Your task to perform on an android device: Search for the best gaming mouse on Best Buy. Image 0: 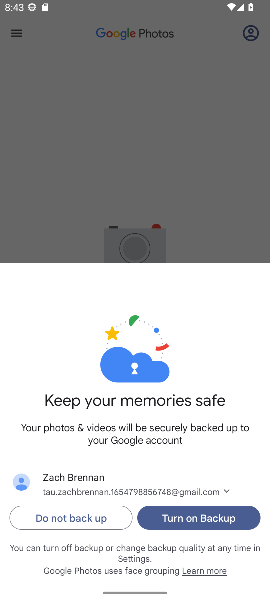
Step 0: press home button
Your task to perform on an android device: Search for the best gaming mouse on Best Buy. Image 1: 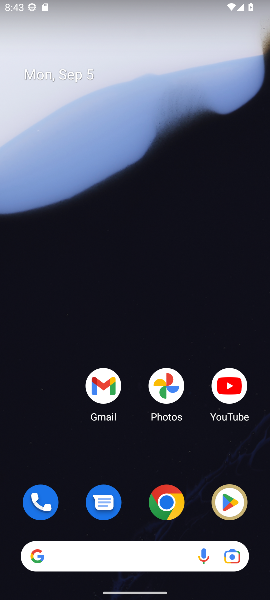
Step 1: drag from (183, 426) to (115, 2)
Your task to perform on an android device: Search for the best gaming mouse on Best Buy. Image 2: 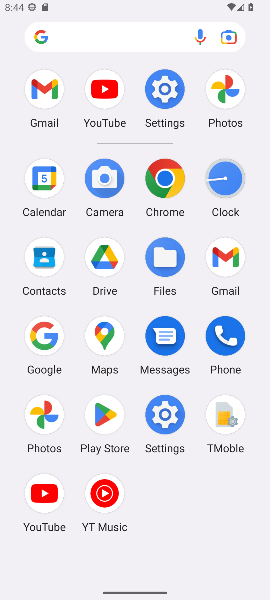
Step 2: click (35, 342)
Your task to perform on an android device: Search for the best gaming mouse on Best Buy. Image 3: 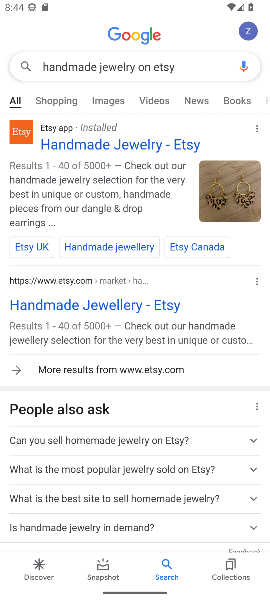
Step 3: press back button
Your task to perform on an android device: Search for the best gaming mouse on Best Buy. Image 4: 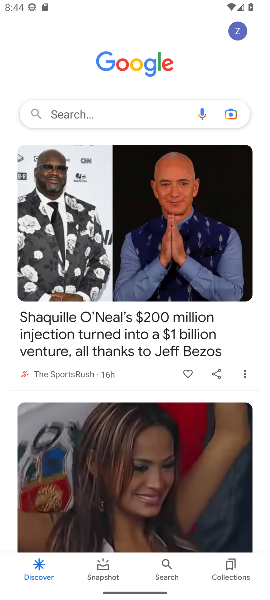
Step 4: click (97, 117)
Your task to perform on an android device: Search for the best gaming mouse on Best Buy. Image 5: 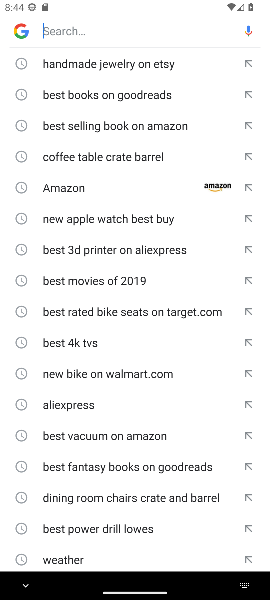
Step 5: type "best gaming mouse on Best Buy"
Your task to perform on an android device: Search for the best gaming mouse on Best Buy. Image 6: 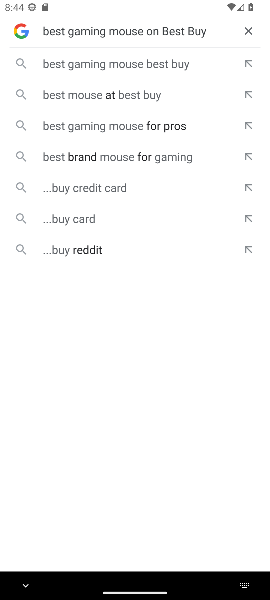
Step 6: click (127, 67)
Your task to perform on an android device: Search for the best gaming mouse on Best Buy. Image 7: 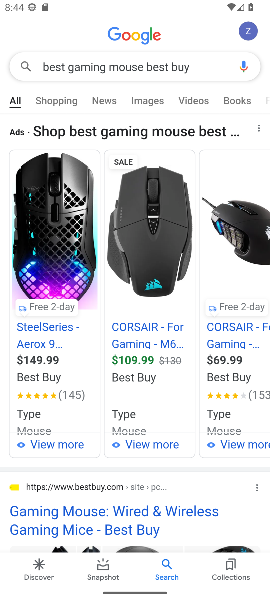
Step 7: task complete